Your task to perform on an android device: toggle notifications settings in the gmail app Image 0: 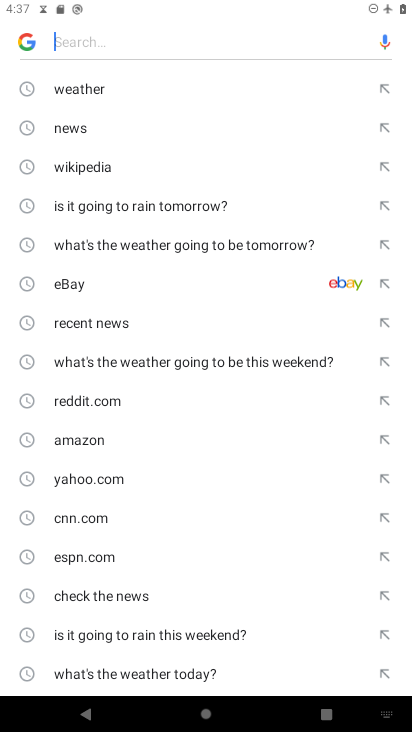
Step 0: press home button
Your task to perform on an android device: toggle notifications settings in the gmail app Image 1: 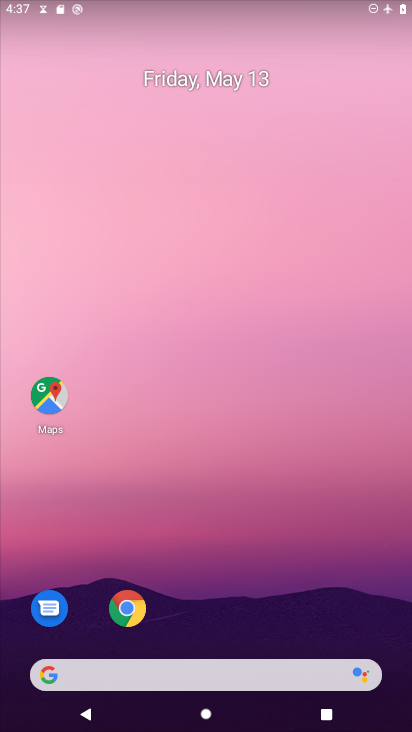
Step 1: drag from (251, 657) to (242, 45)
Your task to perform on an android device: toggle notifications settings in the gmail app Image 2: 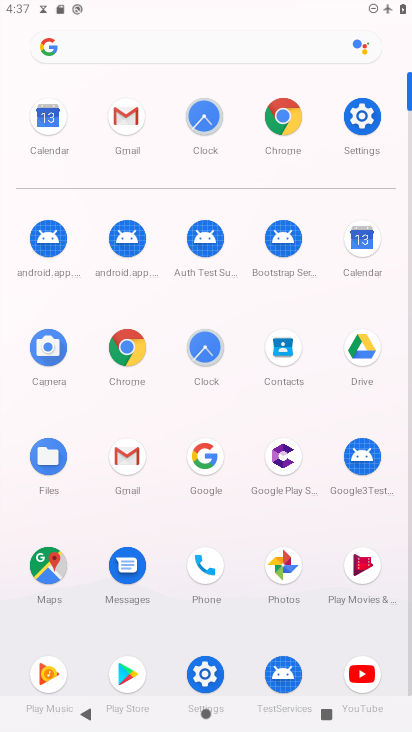
Step 2: click (136, 449)
Your task to perform on an android device: toggle notifications settings in the gmail app Image 3: 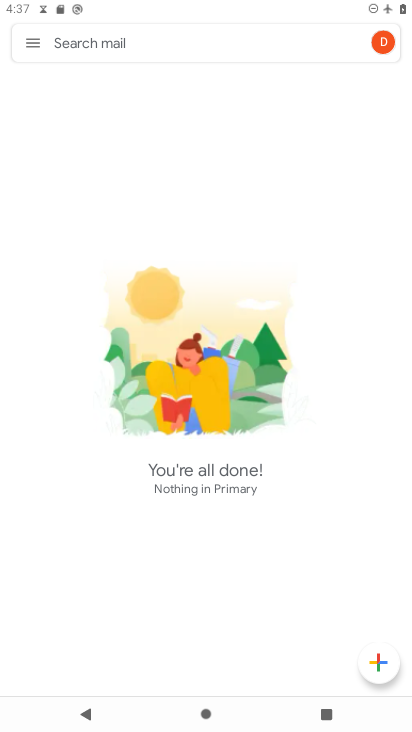
Step 3: click (29, 43)
Your task to perform on an android device: toggle notifications settings in the gmail app Image 4: 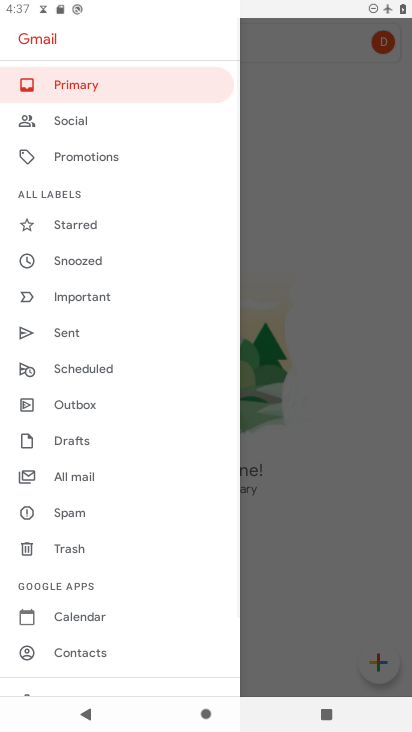
Step 4: drag from (100, 621) to (147, 141)
Your task to perform on an android device: toggle notifications settings in the gmail app Image 5: 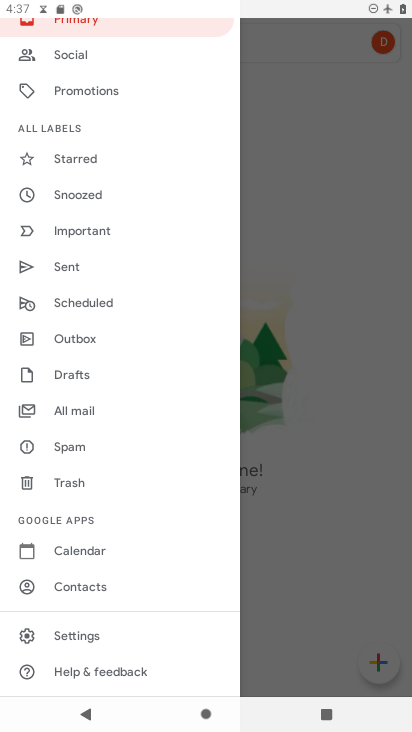
Step 5: click (87, 639)
Your task to perform on an android device: toggle notifications settings in the gmail app Image 6: 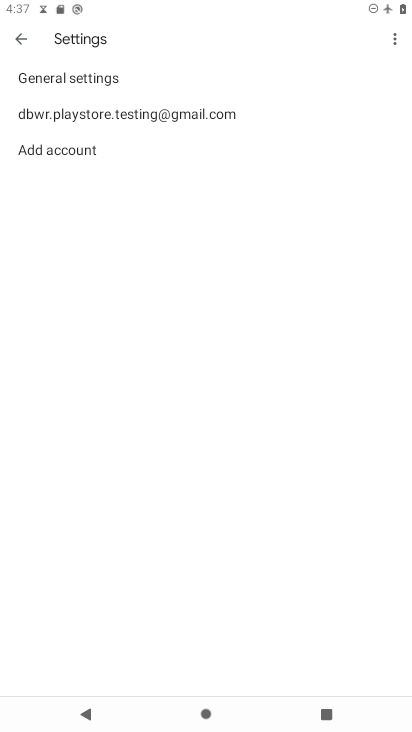
Step 6: click (137, 111)
Your task to perform on an android device: toggle notifications settings in the gmail app Image 7: 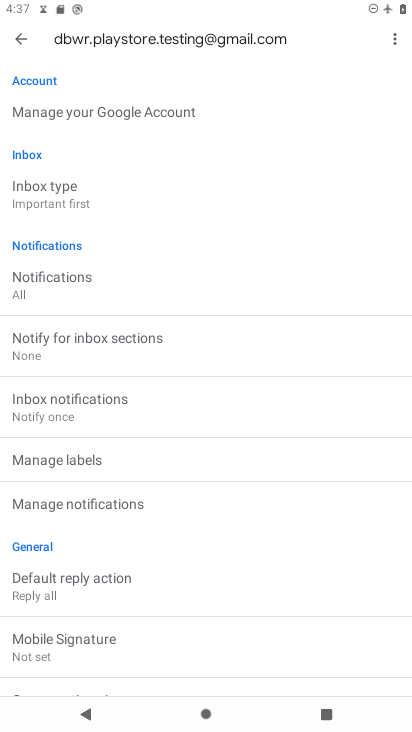
Step 7: click (115, 498)
Your task to perform on an android device: toggle notifications settings in the gmail app Image 8: 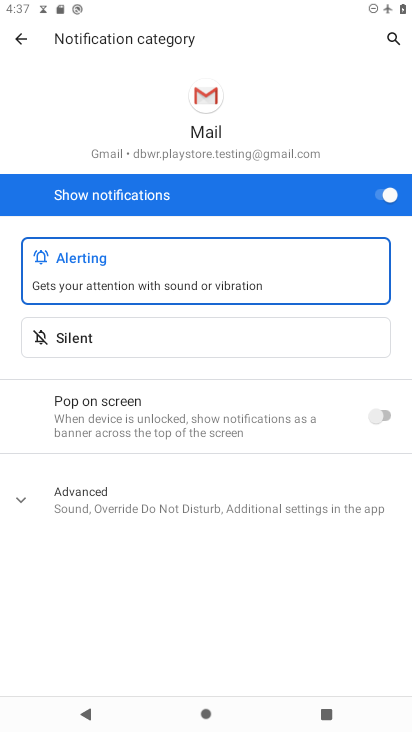
Step 8: click (383, 193)
Your task to perform on an android device: toggle notifications settings in the gmail app Image 9: 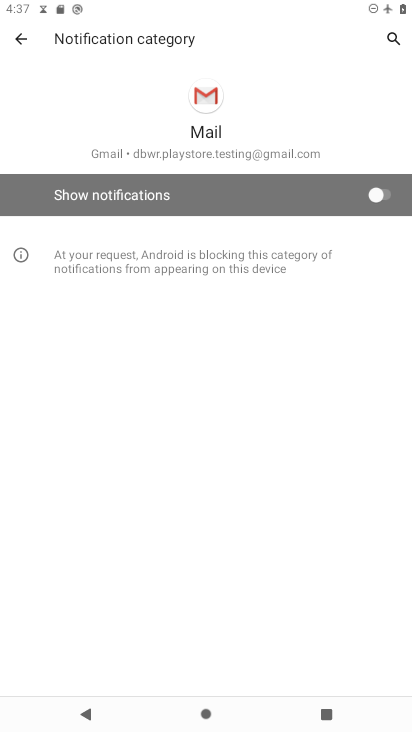
Step 9: task complete